Your task to perform on an android device: move an email to a new category in the gmail app Image 0: 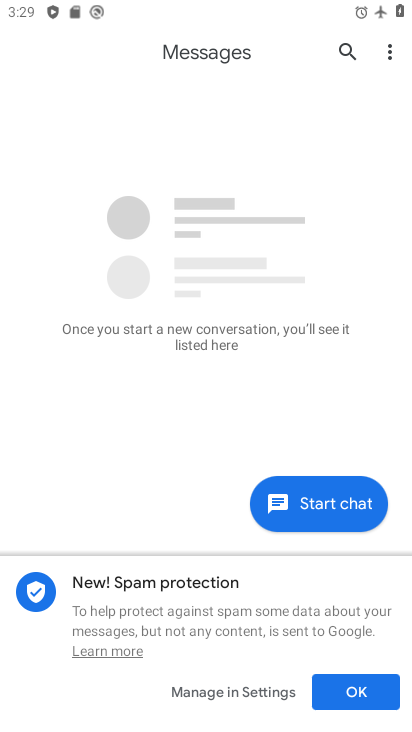
Step 0: press home button
Your task to perform on an android device: move an email to a new category in the gmail app Image 1: 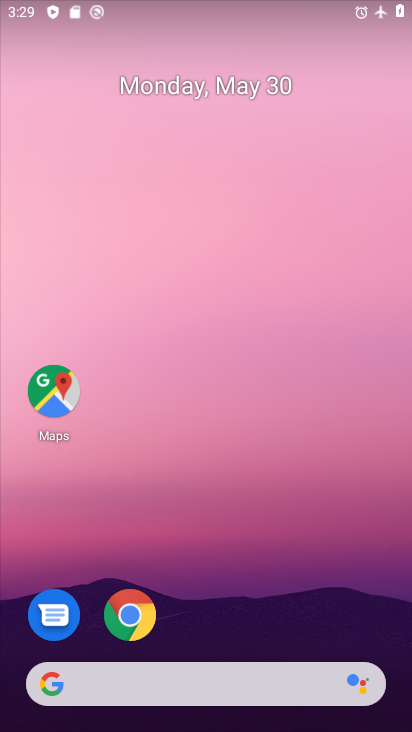
Step 1: drag from (234, 577) to (246, 0)
Your task to perform on an android device: move an email to a new category in the gmail app Image 2: 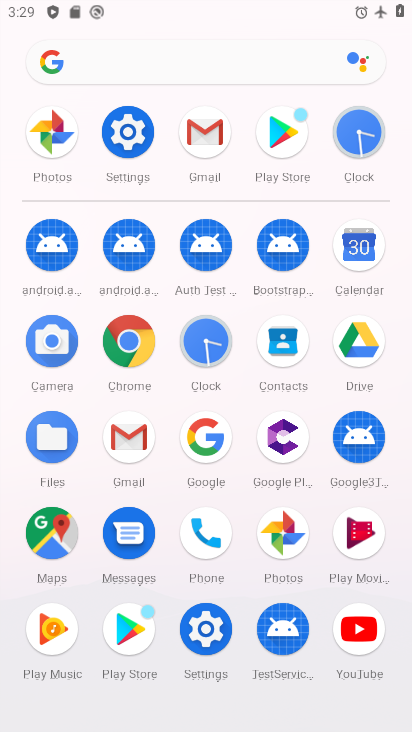
Step 2: click (209, 132)
Your task to perform on an android device: move an email to a new category in the gmail app Image 3: 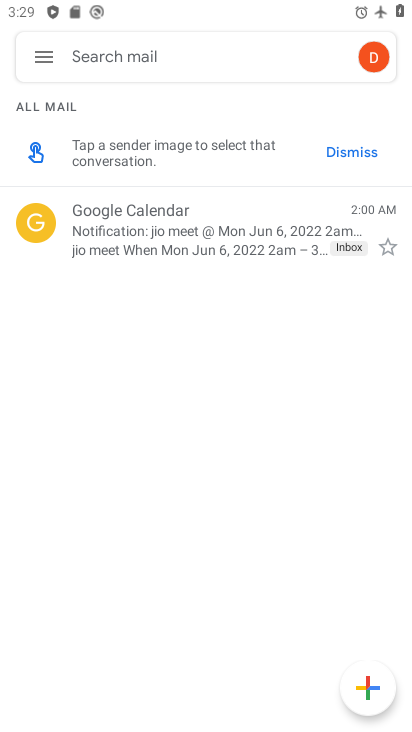
Step 3: click (180, 212)
Your task to perform on an android device: move an email to a new category in the gmail app Image 4: 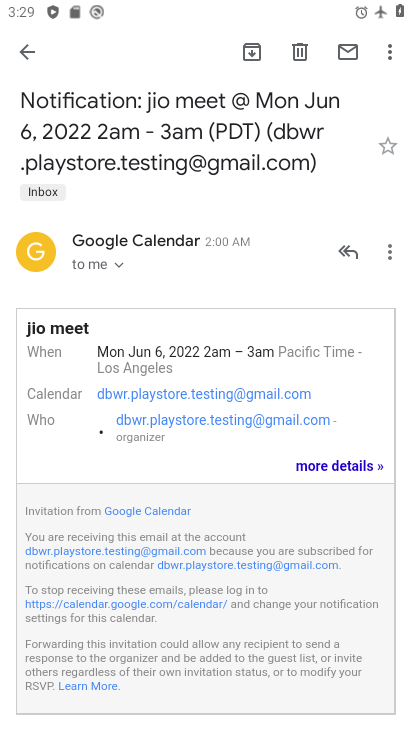
Step 4: click (390, 50)
Your task to perform on an android device: move an email to a new category in the gmail app Image 5: 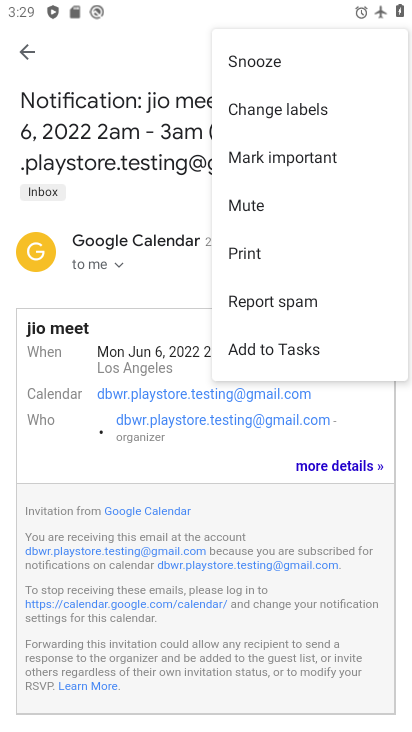
Step 5: click (331, 159)
Your task to perform on an android device: move an email to a new category in the gmail app Image 6: 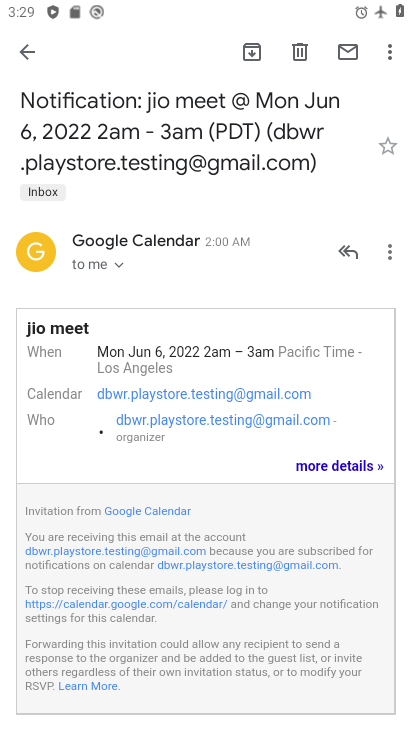
Step 6: click (31, 44)
Your task to perform on an android device: move an email to a new category in the gmail app Image 7: 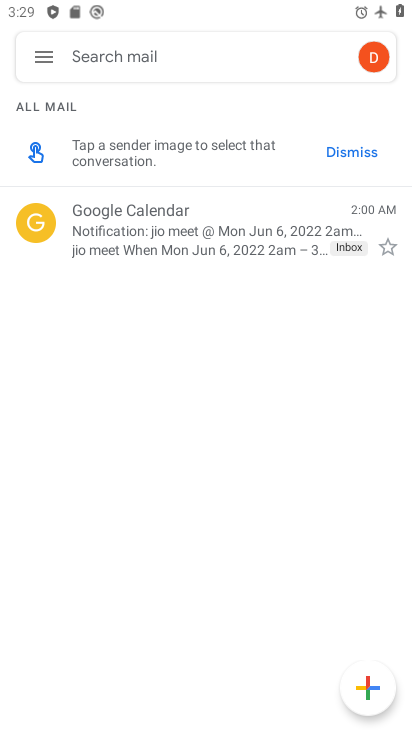
Step 7: task complete